Your task to perform on an android device: Open the phone app and click the voicemail tab. Image 0: 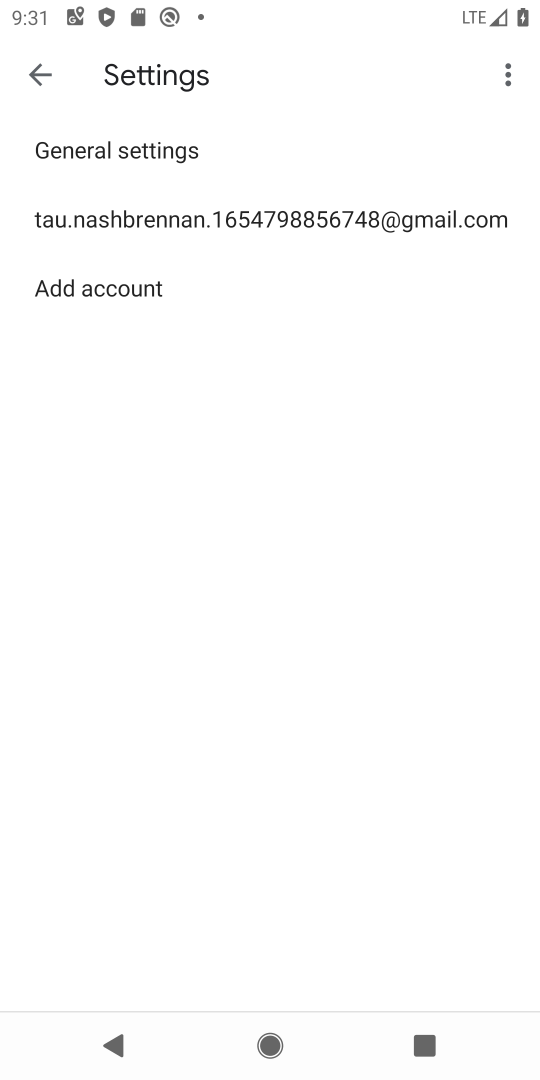
Step 0: press home button
Your task to perform on an android device: Open the phone app and click the voicemail tab. Image 1: 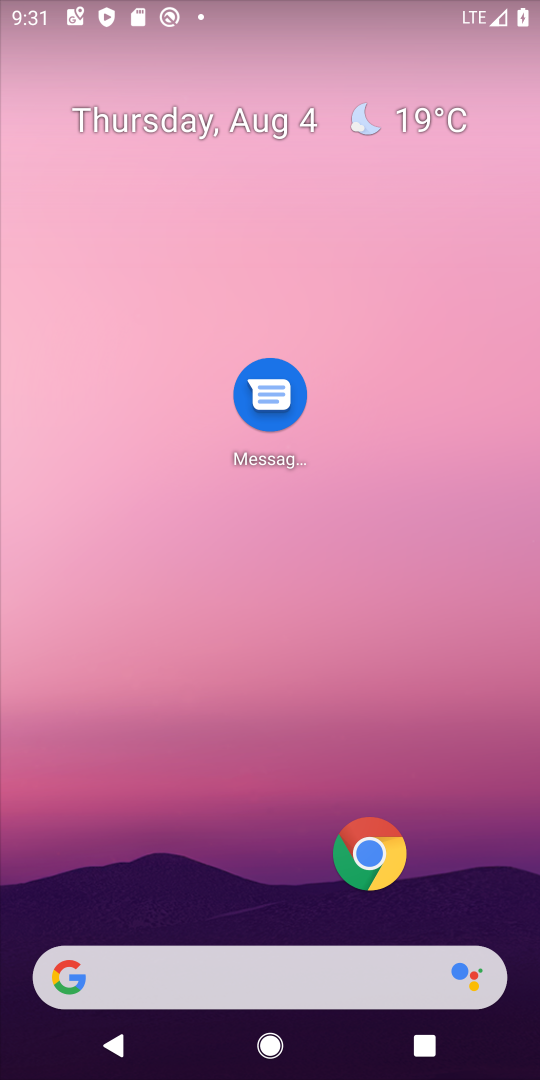
Step 1: drag from (260, 760) to (217, 400)
Your task to perform on an android device: Open the phone app and click the voicemail tab. Image 2: 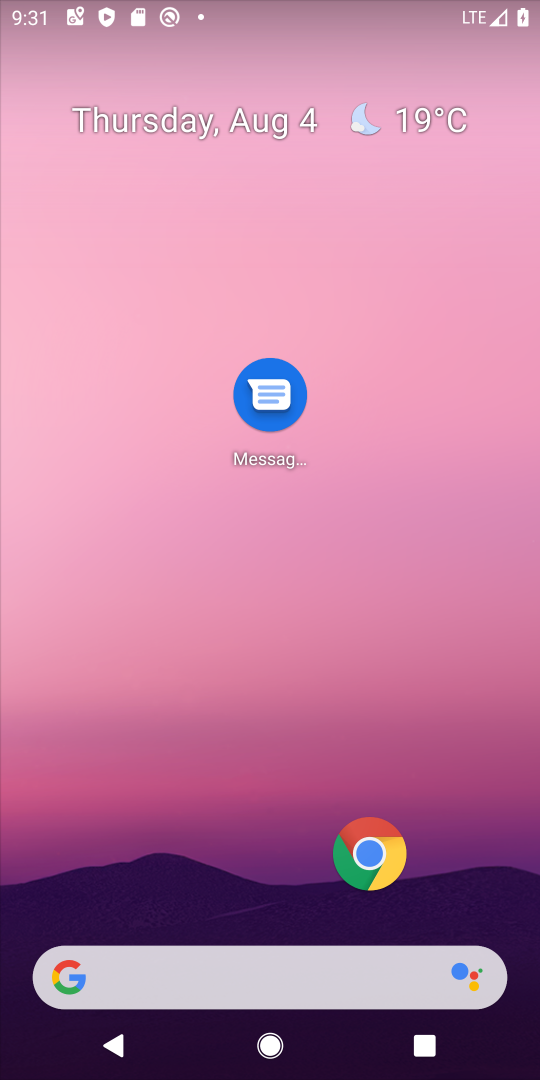
Step 2: drag from (260, 937) to (215, 392)
Your task to perform on an android device: Open the phone app and click the voicemail tab. Image 3: 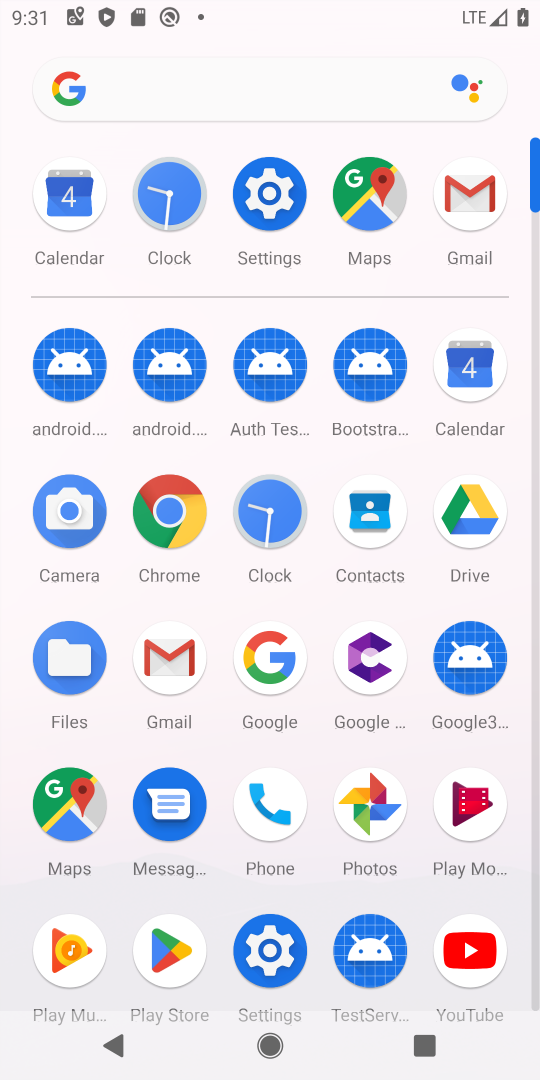
Step 3: click (269, 808)
Your task to perform on an android device: Open the phone app and click the voicemail tab. Image 4: 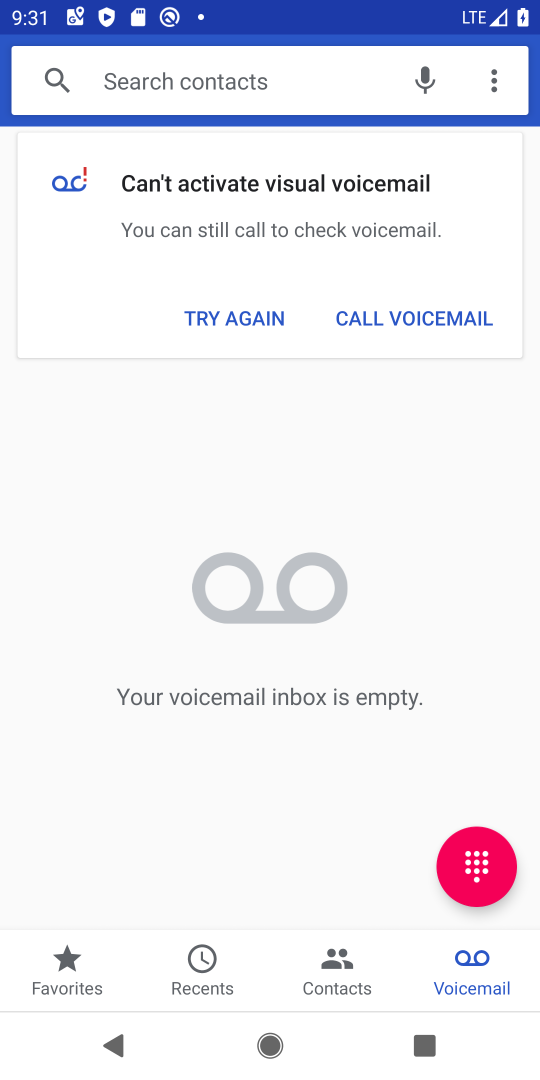
Step 4: click (459, 956)
Your task to perform on an android device: Open the phone app and click the voicemail tab. Image 5: 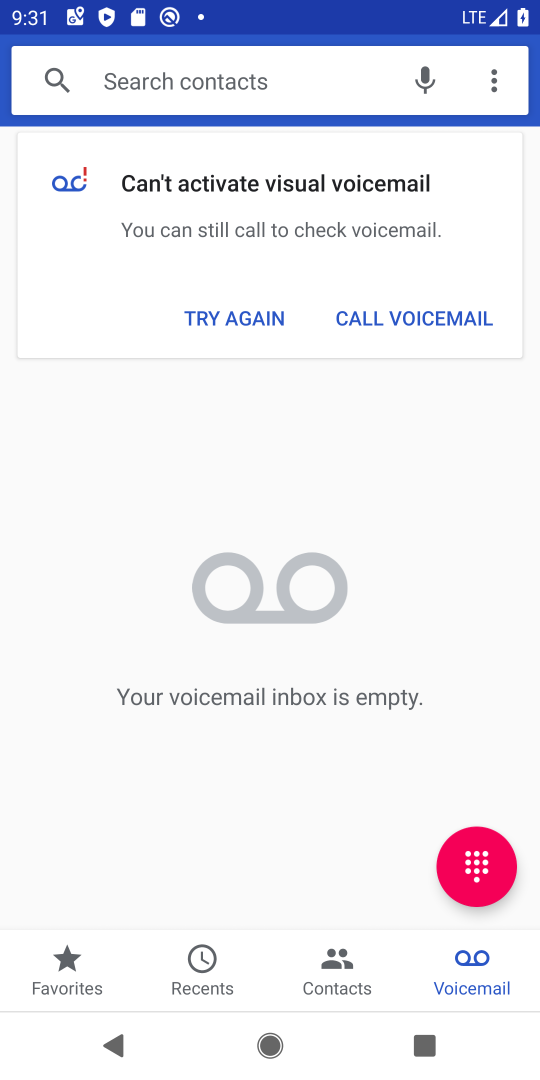
Step 5: task complete